Your task to perform on an android device: turn on airplane mode Image 0: 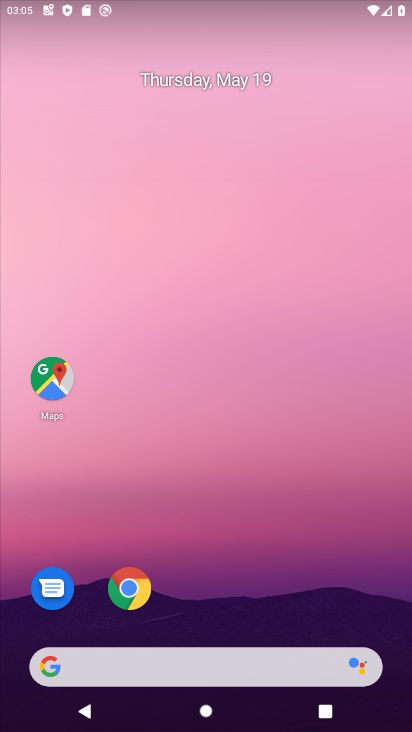
Step 0: drag from (212, 605) to (249, 127)
Your task to perform on an android device: turn on airplane mode Image 1: 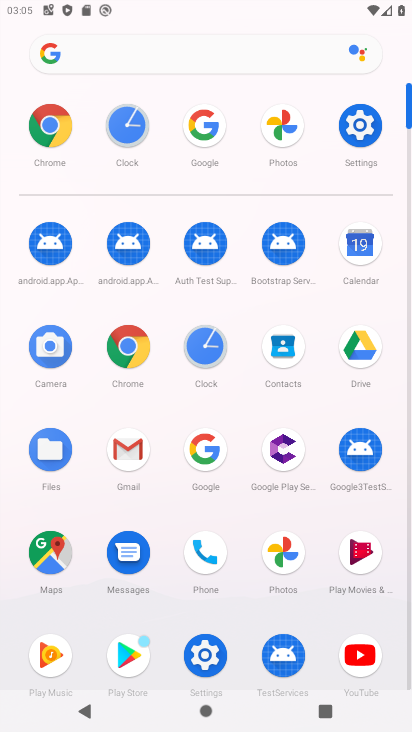
Step 1: click (356, 122)
Your task to perform on an android device: turn on airplane mode Image 2: 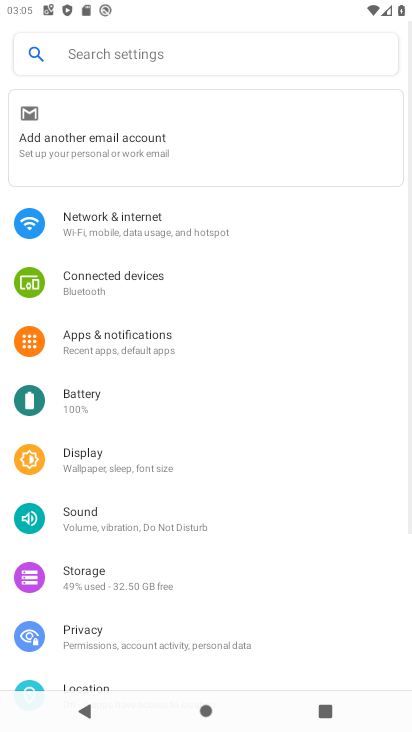
Step 2: click (139, 219)
Your task to perform on an android device: turn on airplane mode Image 3: 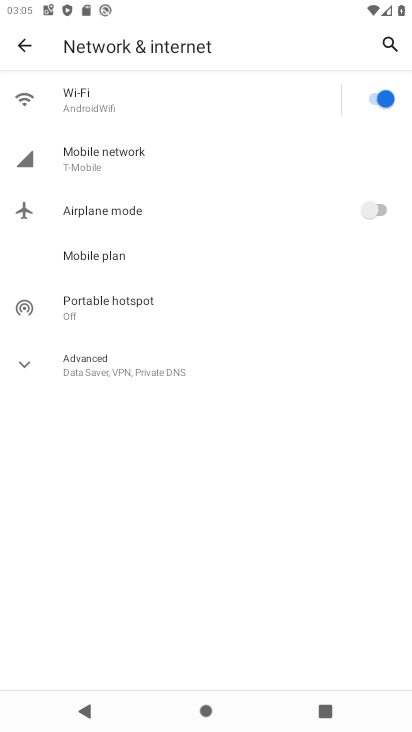
Step 3: click (376, 209)
Your task to perform on an android device: turn on airplane mode Image 4: 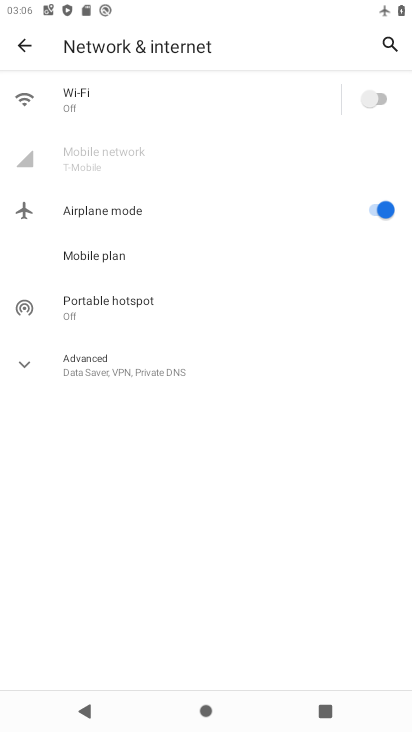
Step 4: task complete